Your task to perform on an android device: Open Yahoo.com Image 0: 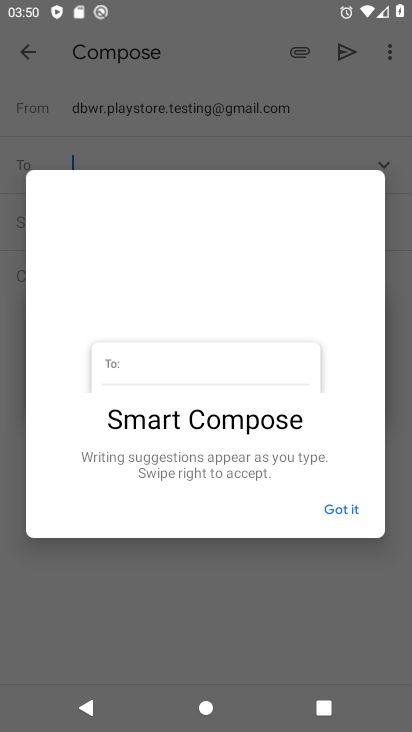
Step 0: press home button
Your task to perform on an android device: Open Yahoo.com Image 1: 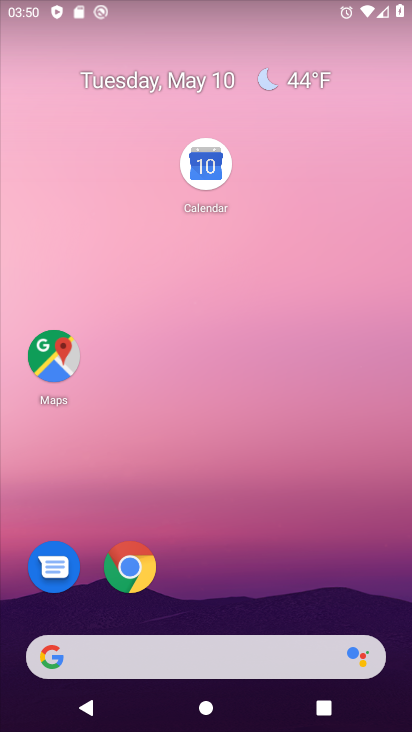
Step 1: click (135, 569)
Your task to perform on an android device: Open Yahoo.com Image 2: 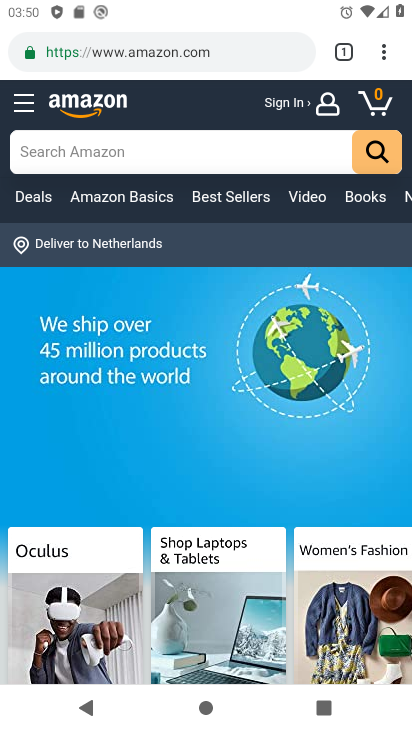
Step 2: press back button
Your task to perform on an android device: Open Yahoo.com Image 3: 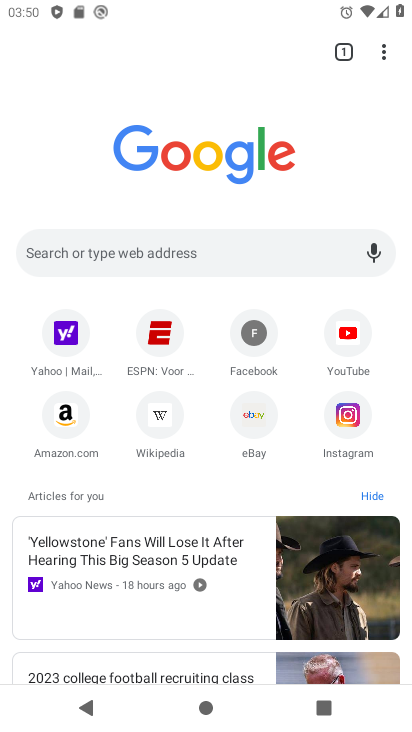
Step 3: click (75, 340)
Your task to perform on an android device: Open Yahoo.com Image 4: 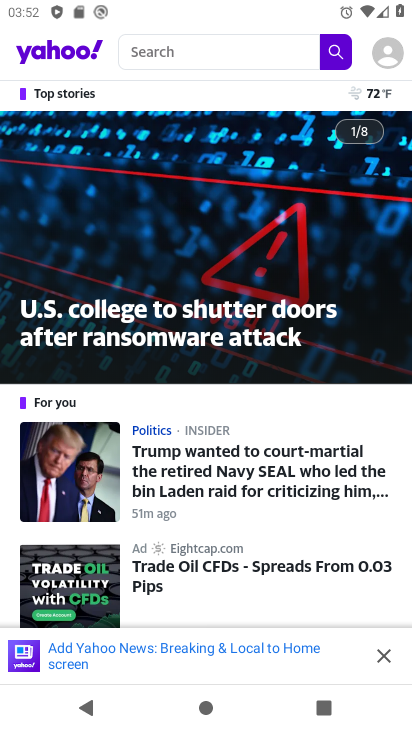
Step 4: task complete